Your task to perform on an android device: Show me popular games on the Play Store Image 0: 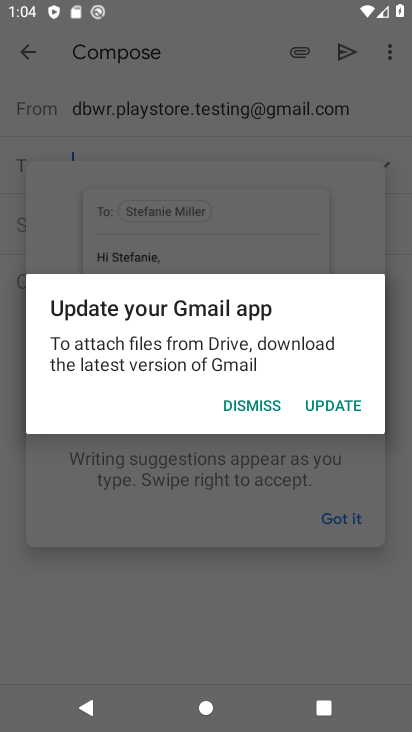
Step 0: click (249, 402)
Your task to perform on an android device: Show me popular games on the Play Store Image 1: 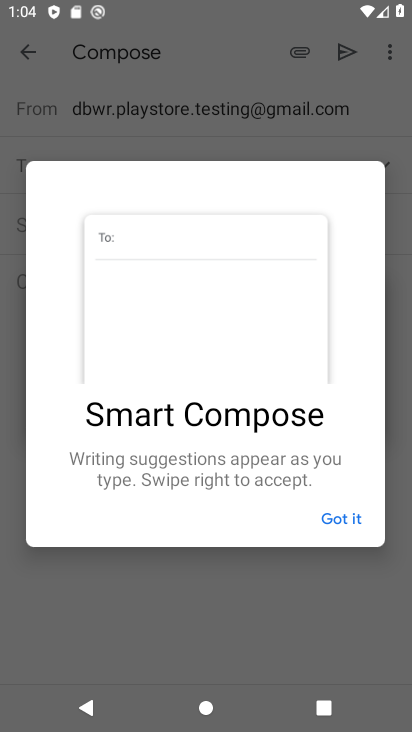
Step 1: click (348, 524)
Your task to perform on an android device: Show me popular games on the Play Store Image 2: 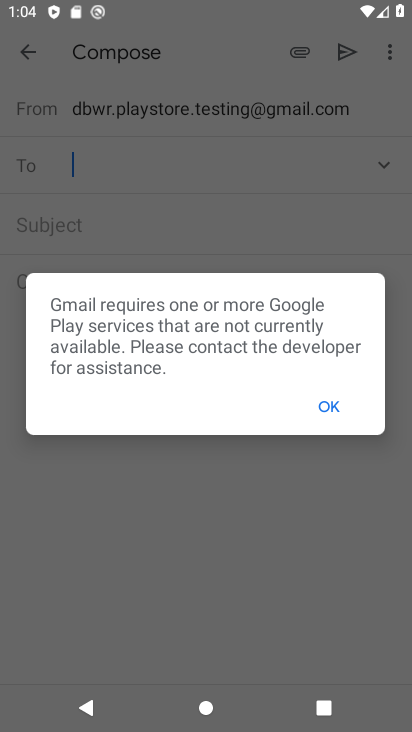
Step 2: press home button
Your task to perform on an android device: Show me popular games on the Play Store Image 3: 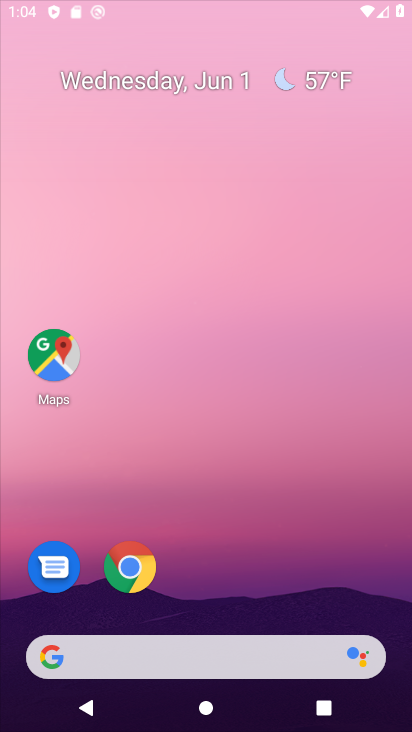
Step 3: press home button
Your task to perform on an android device: Show me popular games on the Play Store Image 4: 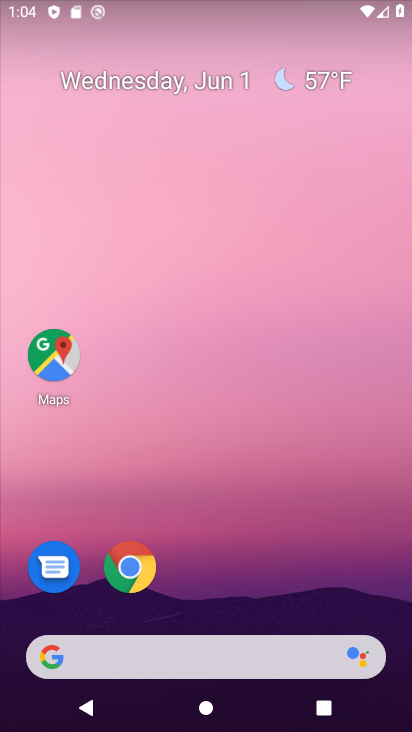
Step 4: drag from (356, 558) to (323, 177)
Your task to perform on an android device: Show me popular games on the Play Store Image 5: 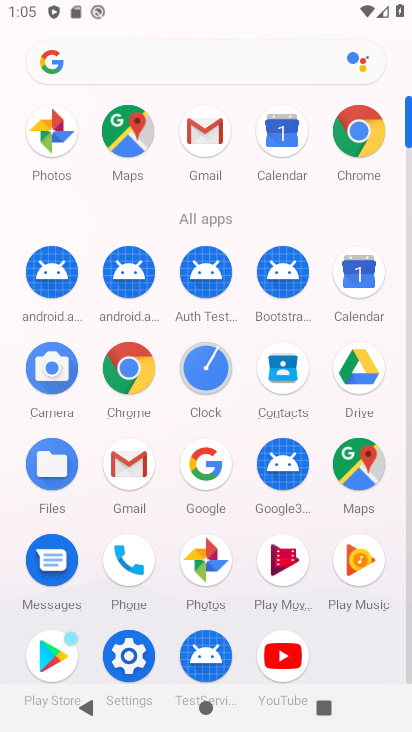
Step 5: click (60, 652)
Your task to perform on an android device: Show me popular games on the Play Store Image 6: 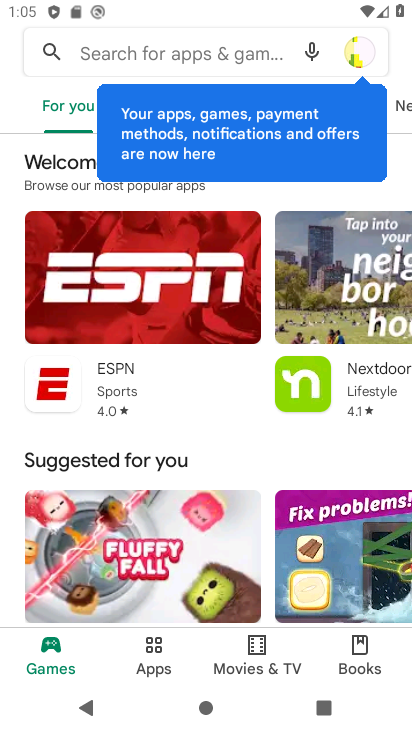
Step 6: click (229, 327)
Your task to perform on an android device: Show me popular games on the Play Store Image 7: 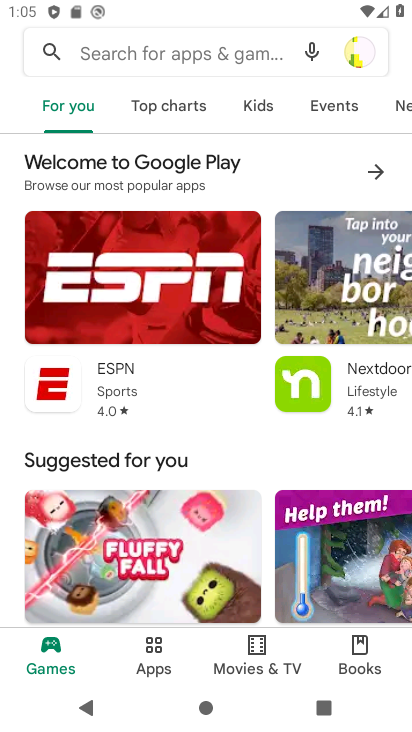
Step 7: click (175, 117)
Your task to perform on an android device: Show me popular games on the Play Store Image 8: 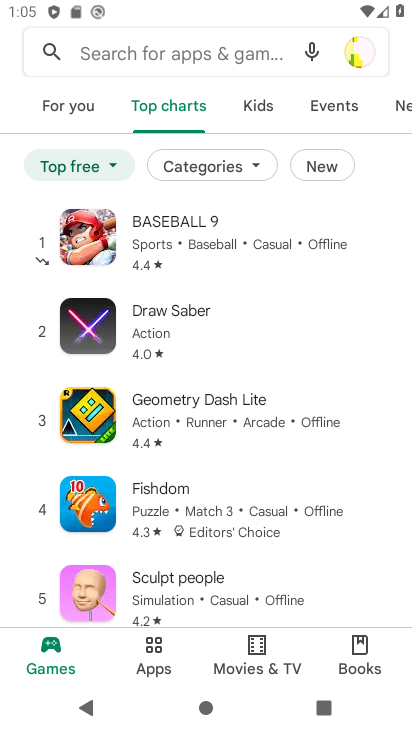
Step 8: task complete